Your task to perform on an android device: Add "asus zenbook" to the cart on costco.com, then select checkout. Image 0: 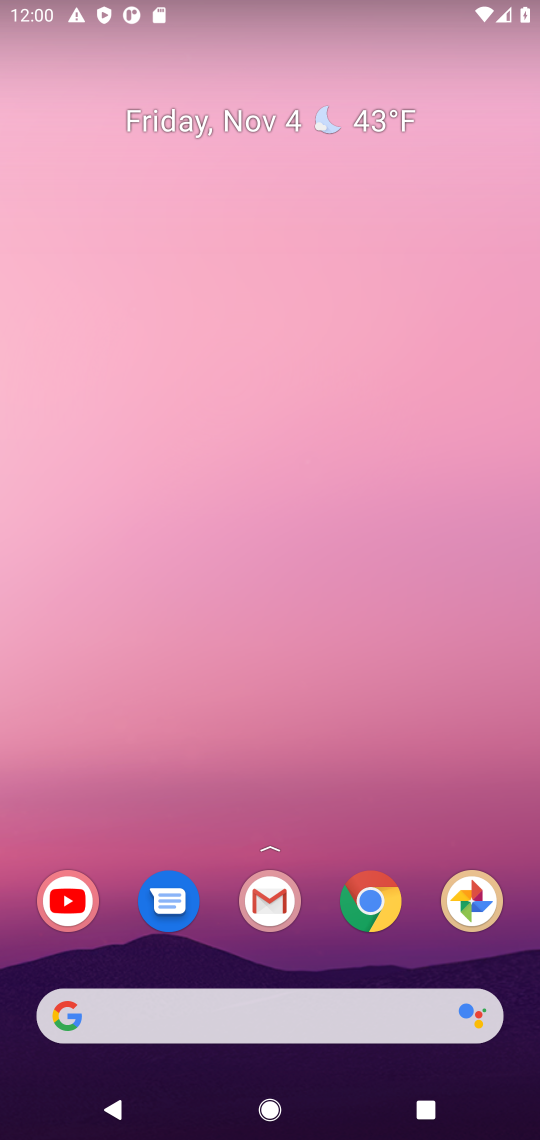
Step 0: click (382, 902)
Your task to perform on an android device: Add "asus zenbook" to the cart on costco.com, then select checkout. Image 1: 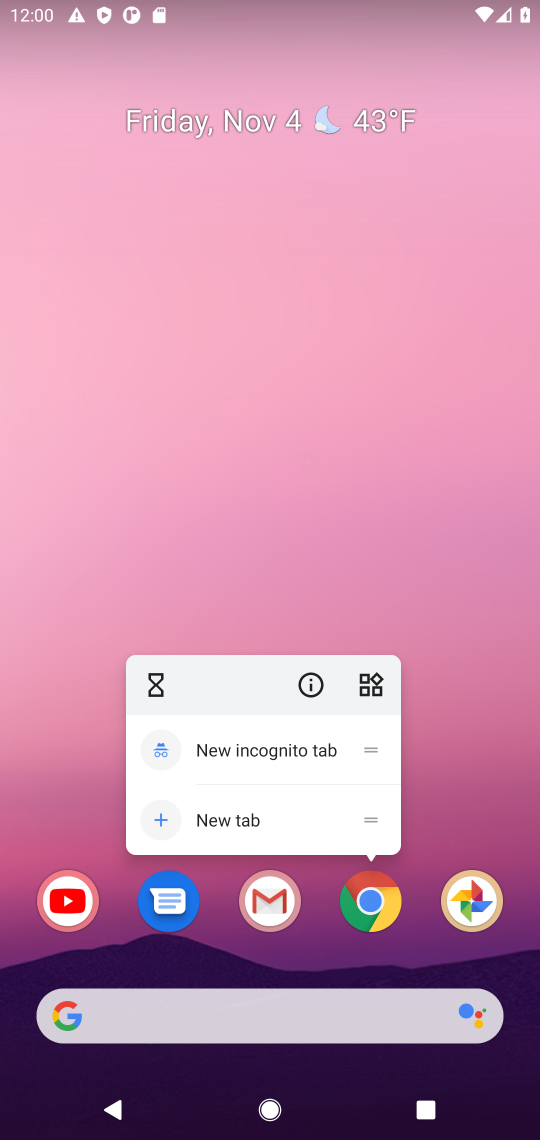
Step 1: click (381, 901)
Your task to perform on an android device: Add "asus zenbook" to the cart on costco.com, then select checkout. Image 2: 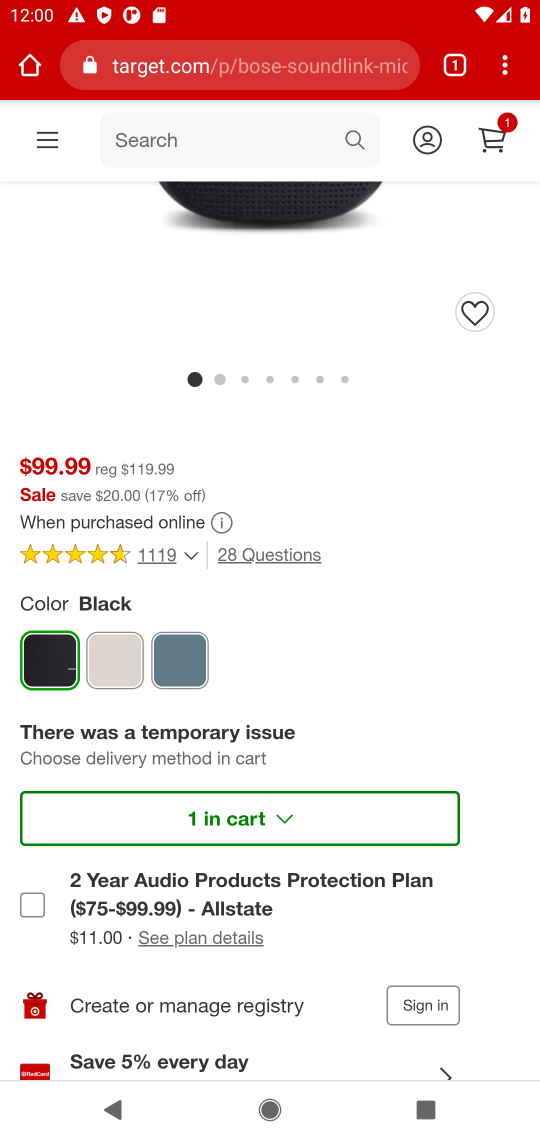
Step 2: click (304, 59)
Your task to perform on an android device: Add "asus zenbook" to the cart on costco.com, then select checkout. Image 3: 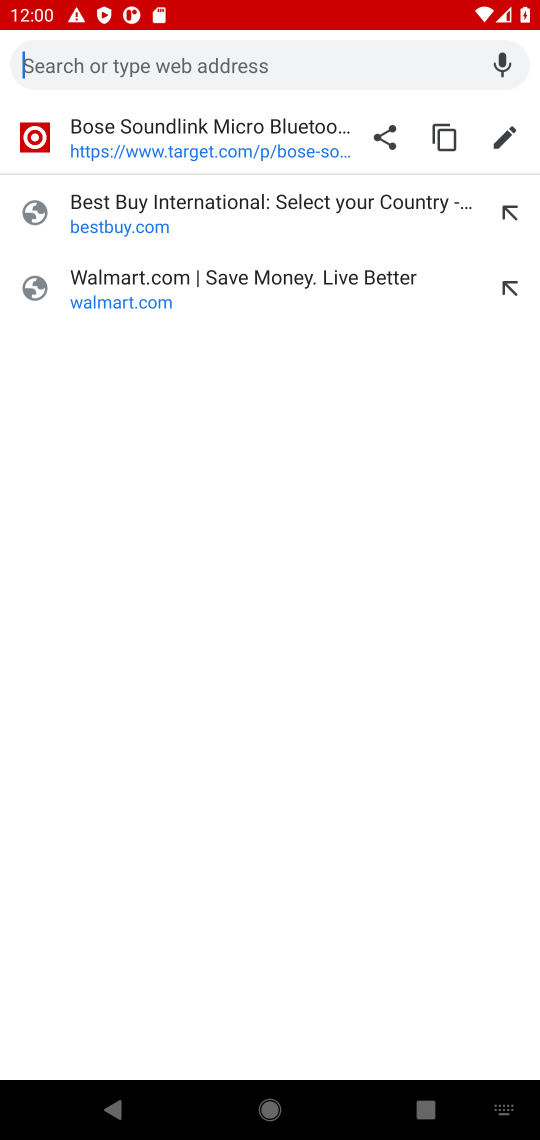
Step 3: type "costco.com"
Your task to perform on an android device: Add "asus zenbook" to the cart on costco.com, then select checkout. Image 4: 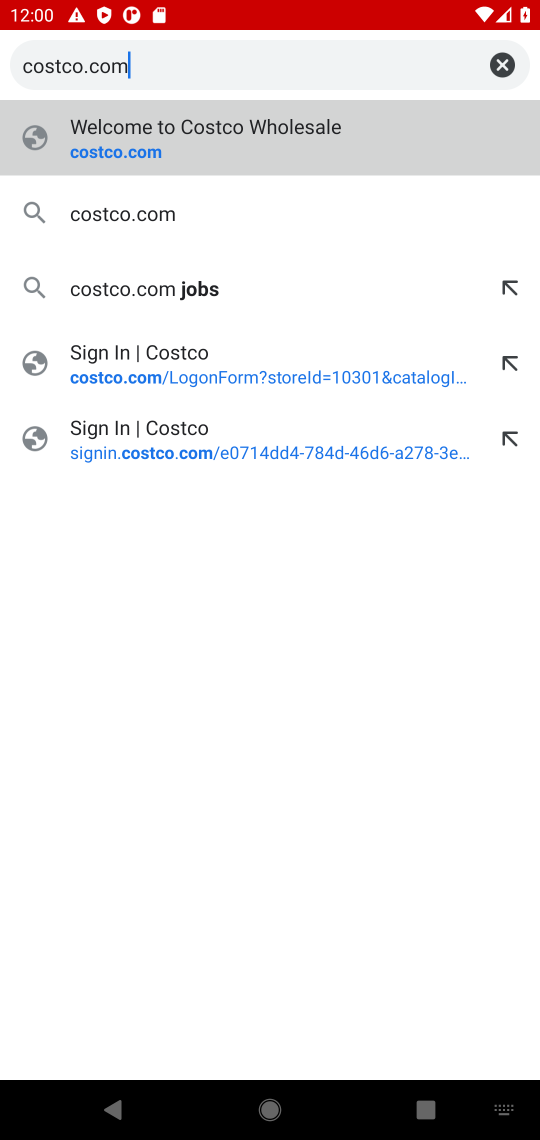
Step 4: click (149, 219)
Your task to perform on an android device: Add "asus zenbook" to the cart on costco.com, then select checkout. Image 5: 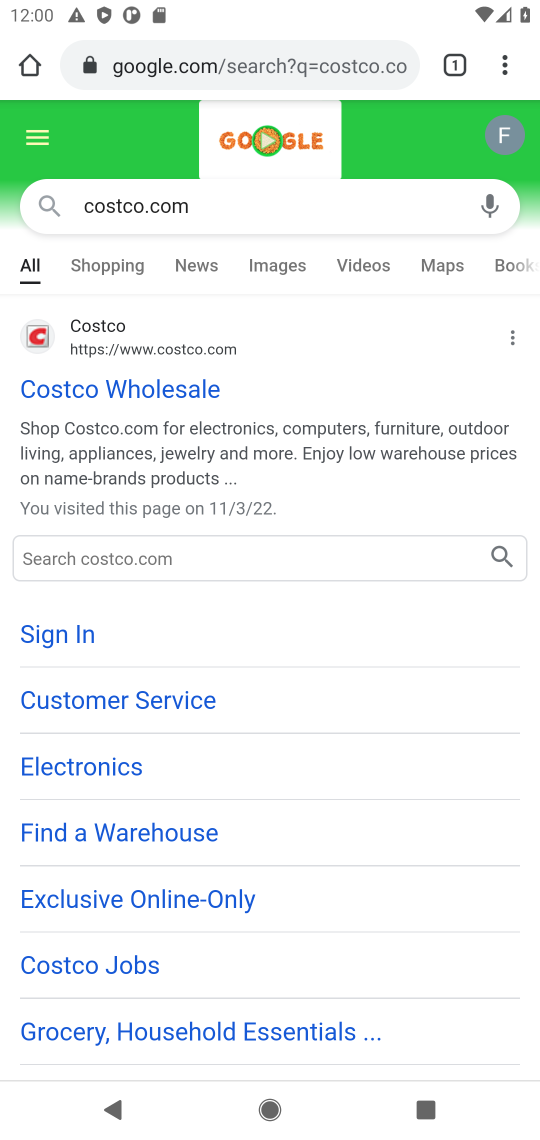
Step 5: click (187, 351)
Your task to perform on an android device: Add "asus zenbook" to the cart on costco.com, then select checkout. Image 6: 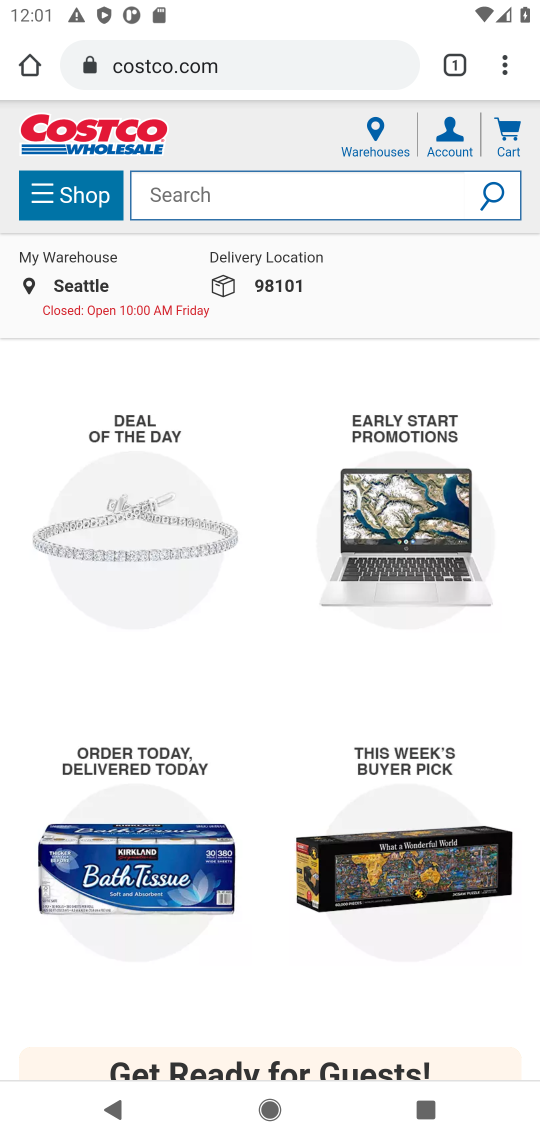
Step 6: click (265, 191)
Your task to perform on an android device: Add "asus zenbook" to the cart on costco.com, then select checkout. Image 7: 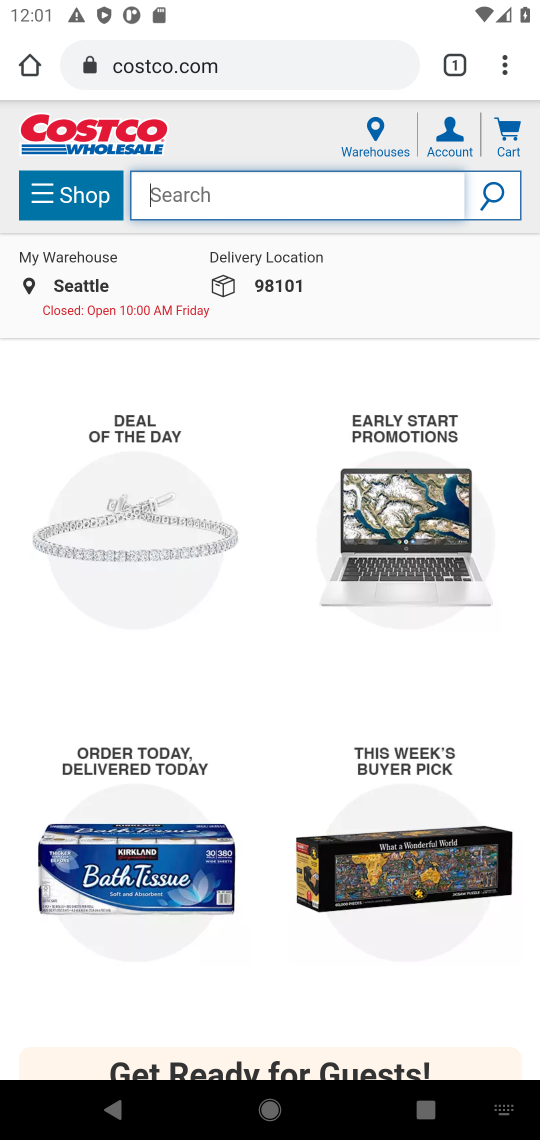
Step 7: type "asus zenbook"
Your task to perform on an android device: Add "asus zenbook" to the cart on costco.com, then select checkout. Image 8: 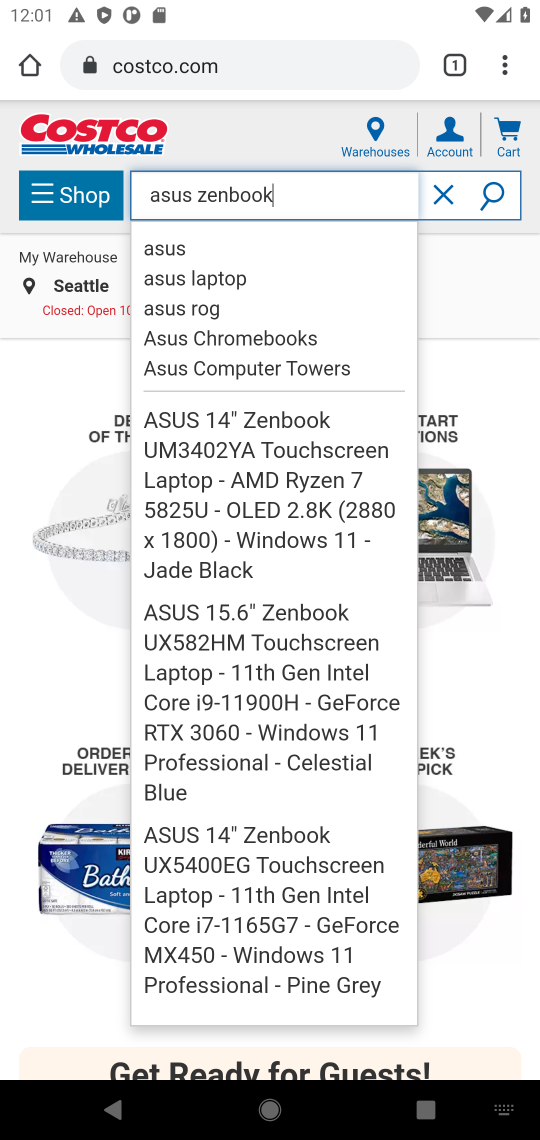
Step 8: click (490, 292)
Your task to perform on an android device: Add "asus zenbook" to the cart on costco.com, then select checkout. Image 9: 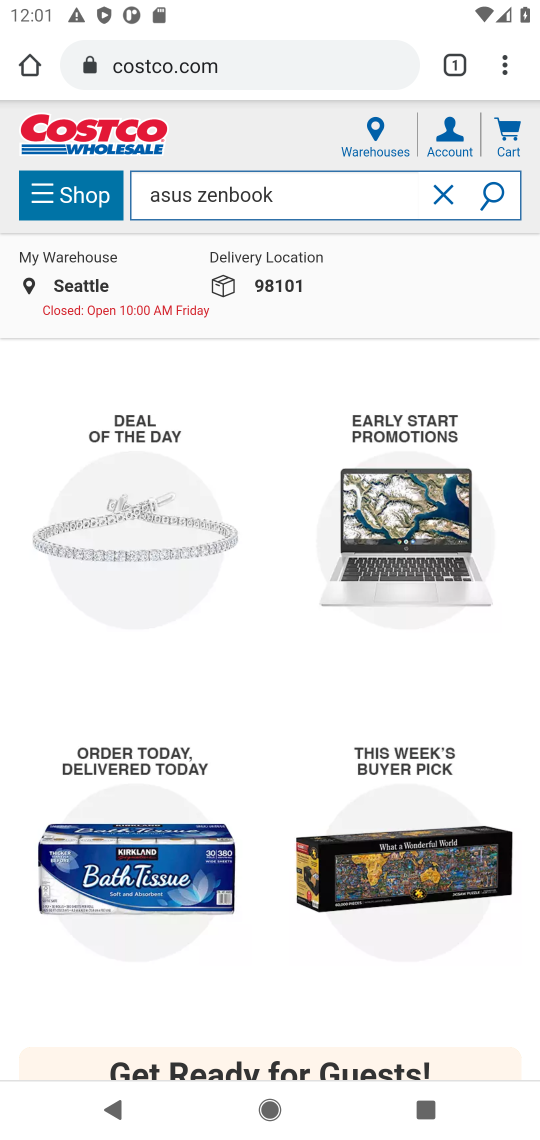
Step 9: task complete